Your task to perform on an android device: open device folders in google photos Image 0: 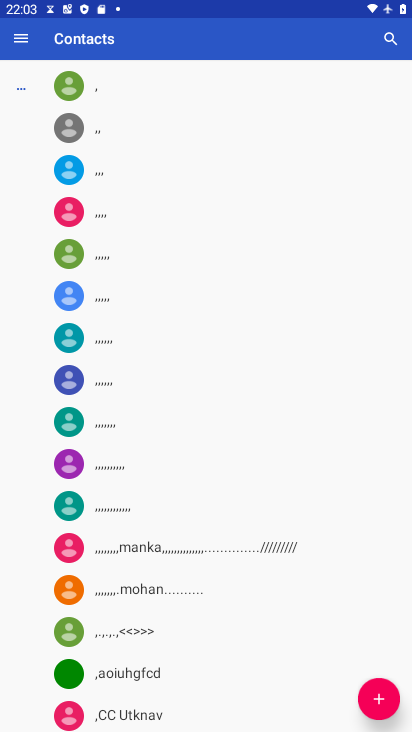
Step 0: press home button
Your task to perform on an android device: open device folders in google photos Image 1: 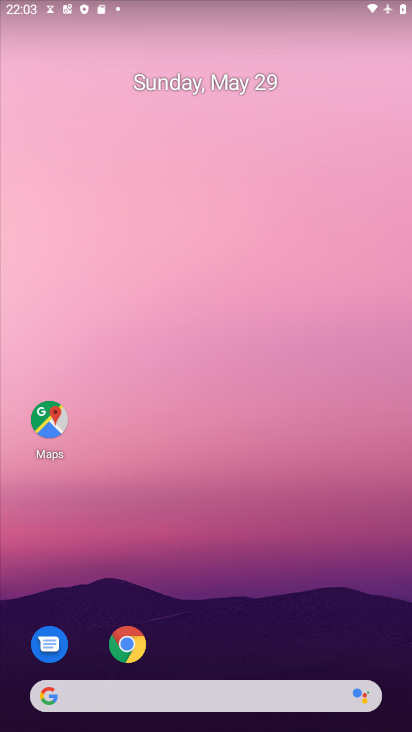
Step 1: drag from (253, 660) to (254, 216)
Your task to perform on an android device: open device folders in google photos Image 2: 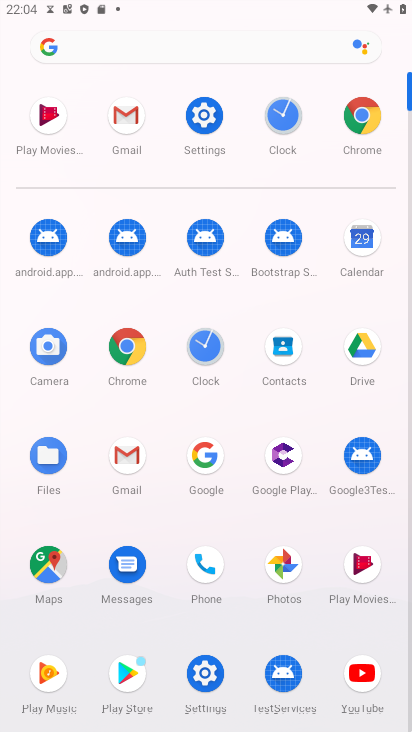
Step 2: click (280, 558)
Your task to perform on an android device: open device folders in google photos Image 3: 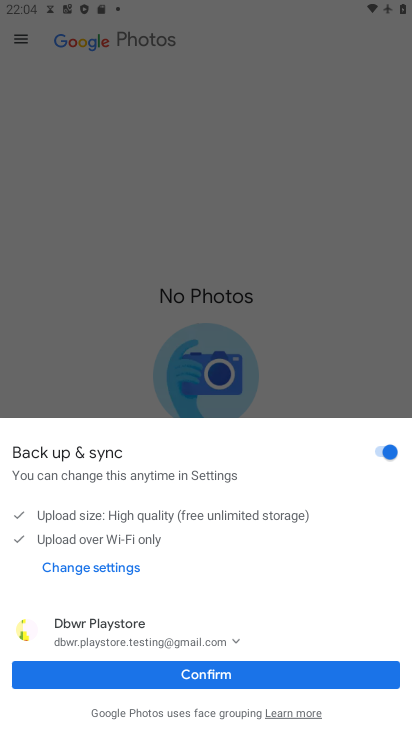
Step 3: click (195, 669)
Your task to perform on an android device: open device folders in google photos Image 4: 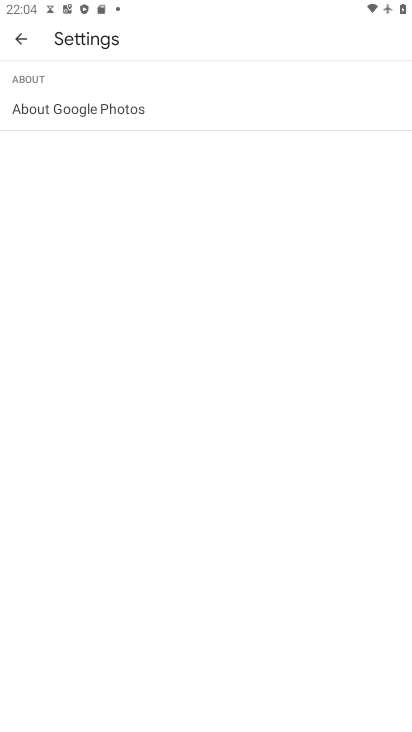
Step 4: click (19, 39)
Your task to perform on an android device: open device folders in google photos Image 5: 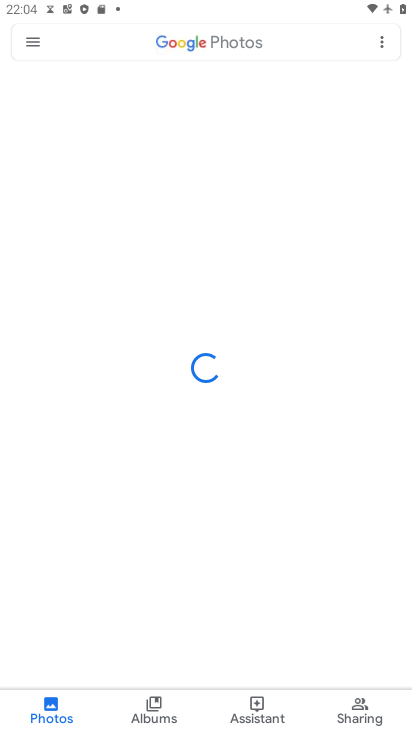
Step 5: click (163, 702)
Your task to perform on an android device: open device folders in google photos Image 6: 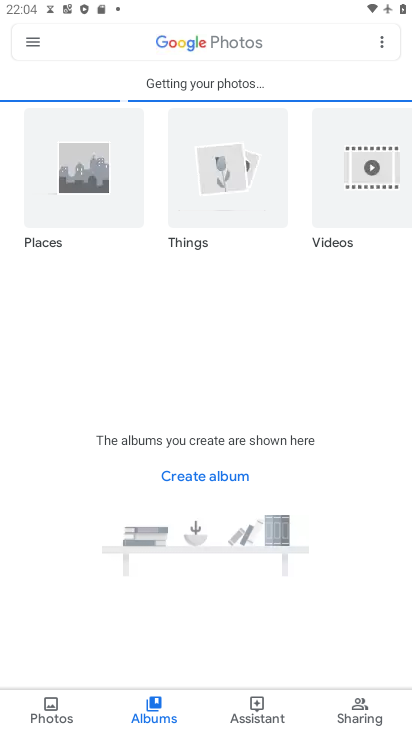
Step 6: click (36, 709)
Your task to perform on an android device: open device folders in google photos Image 7: 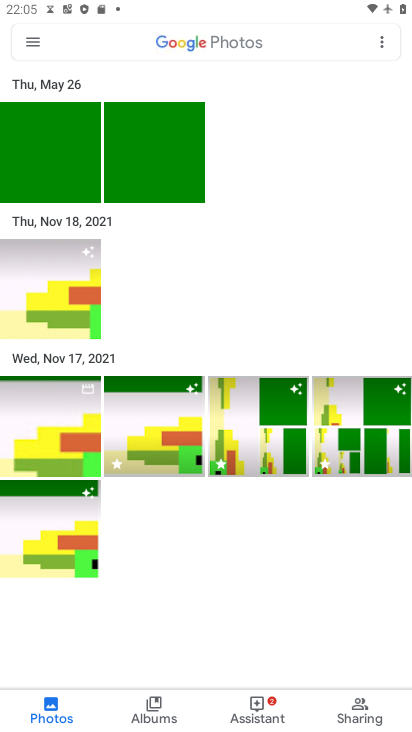
Step 7: task complete